Your task to perform on an android device: turn off notifications settings in the gmail app Image 0: 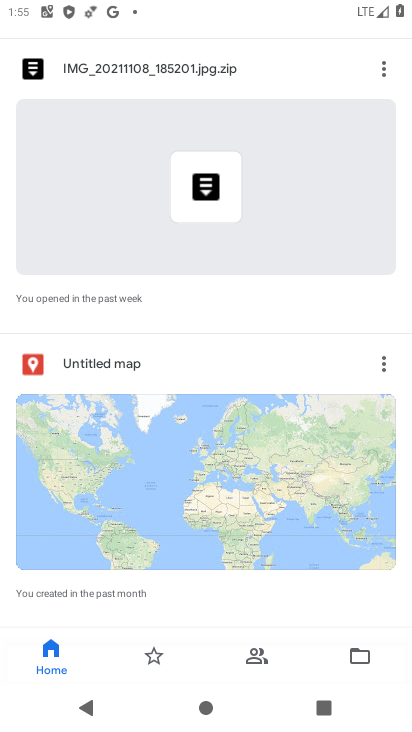
Step 0: press home button
Your task to perform on an android device: turn off notifications settings in the gmail app Image 1: 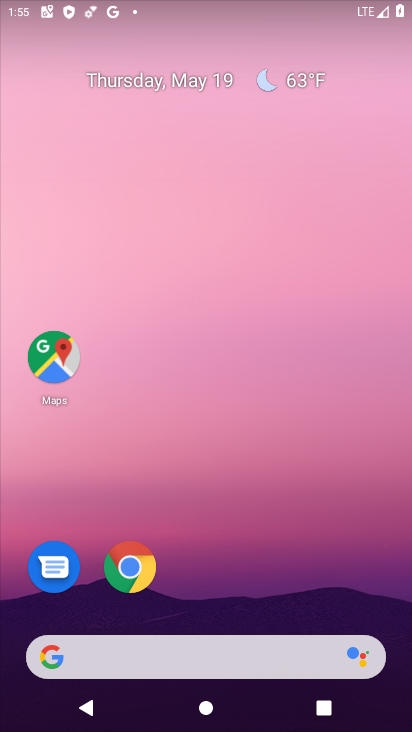
Step 1: drag from (317, 485) to (322, 0)
Your task to perform on an android device: turn off notifications settings in the gmail app Image 2: 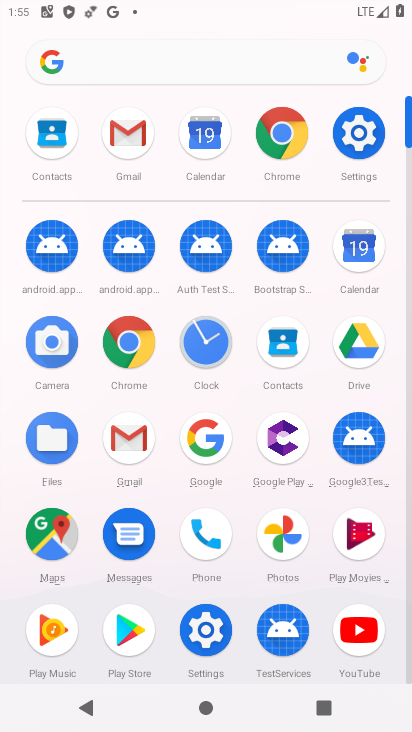
Step 2: click (143, 138)
Your task to perform on an android device: turn off notifications settings in the gmail app Image 3: 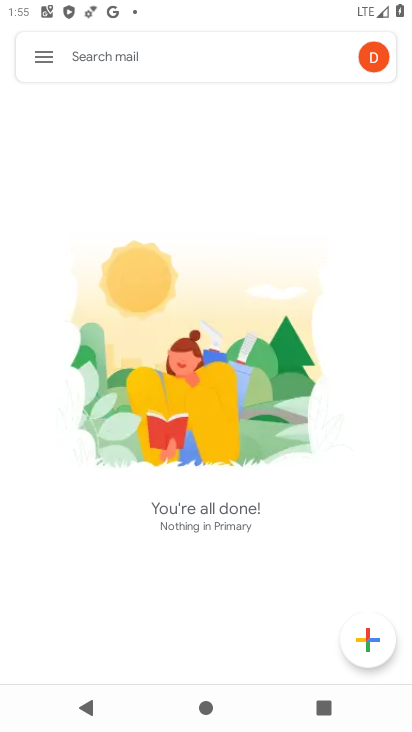
Step 3: click (52, 46)
Your task to perform on an android device: turn off notifications settings in the gmail app Image 4: 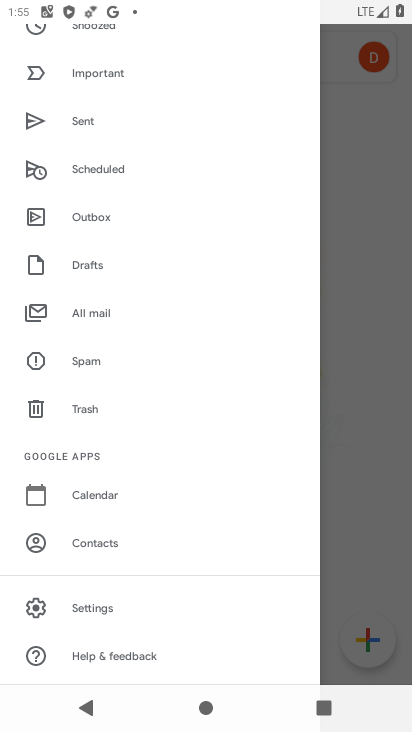
Step 4: click (103, 607)
Your task to perform on an android device: turn off notifications settings in the gmail app Image 5: 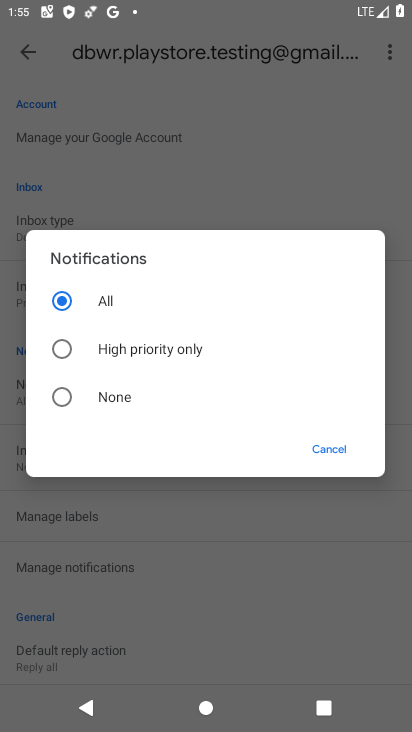
Step 5: click (73, 400)
Your task to perform on an android device: turn off notifications settings in the gmail app Image 6: 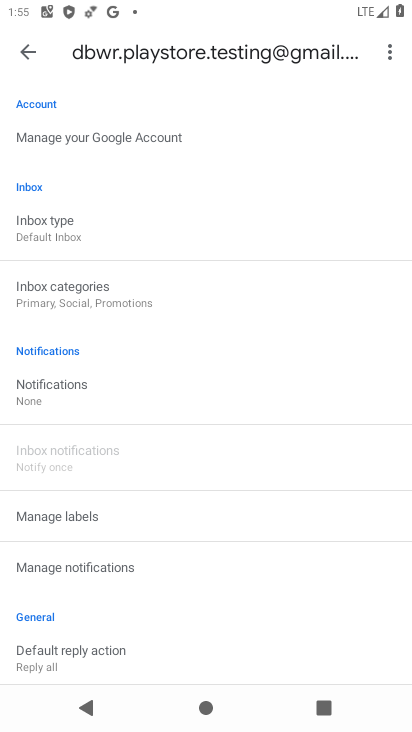
Step 6: task complete